Your task to perform on an android device: Open Google Maps Image 0: 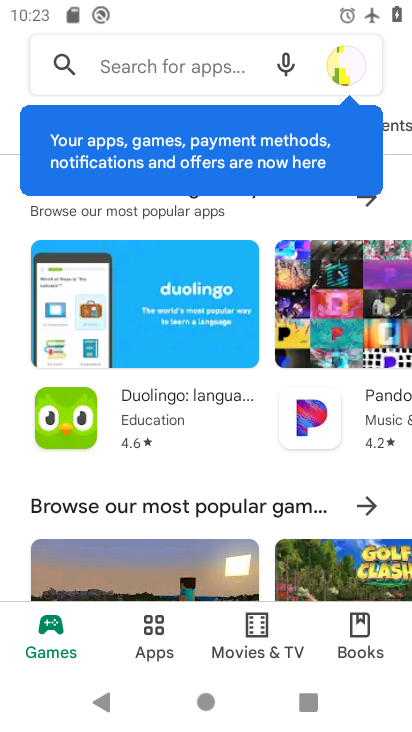
Step 0: press home button
Your task to perform on an android device: Open Google Maps Image 1: 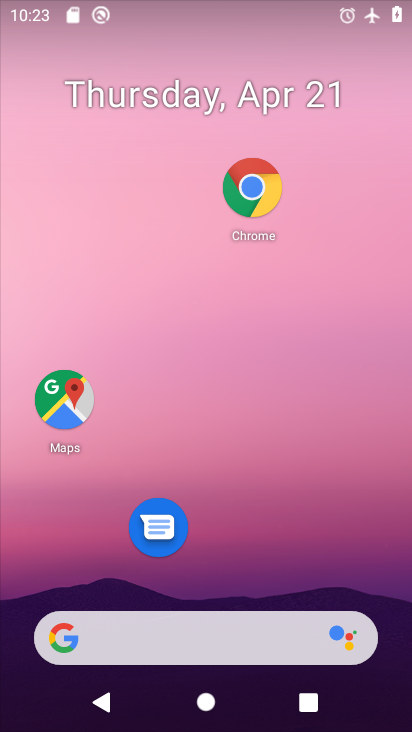
Step 1: drag from (238, 633) to (297, 234)
Your task to perform on an android device: Open Google Maps Image 2: 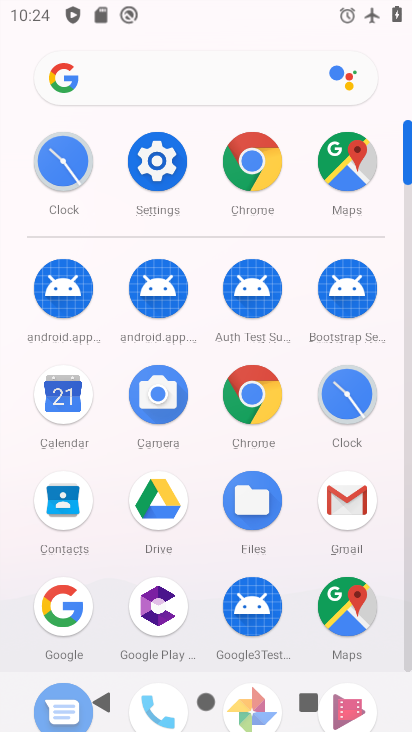
Step 2: click (352, 620)
Your task to perform on an android device: Open Google Maps Image 3: 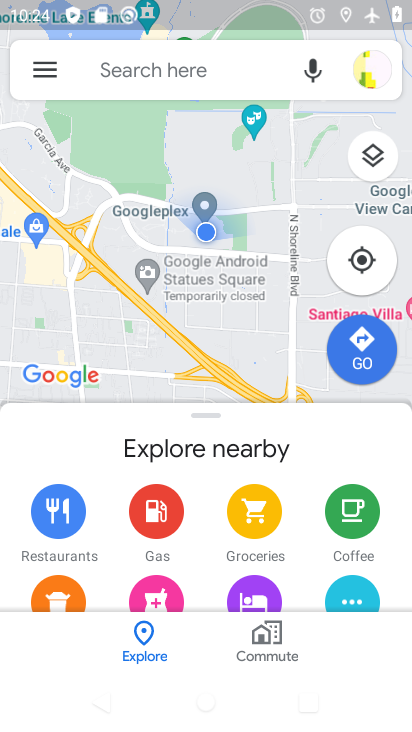
Step 3: task complete